Your task to perform on an android device: empty trash in the gmail app Image 0: 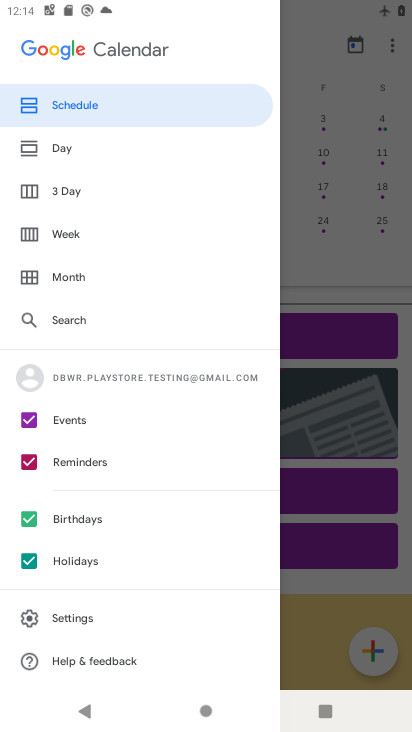
Step 0: click (109, 622)
Your task to perform on an android device: empty trash in the gmail app Image 1: 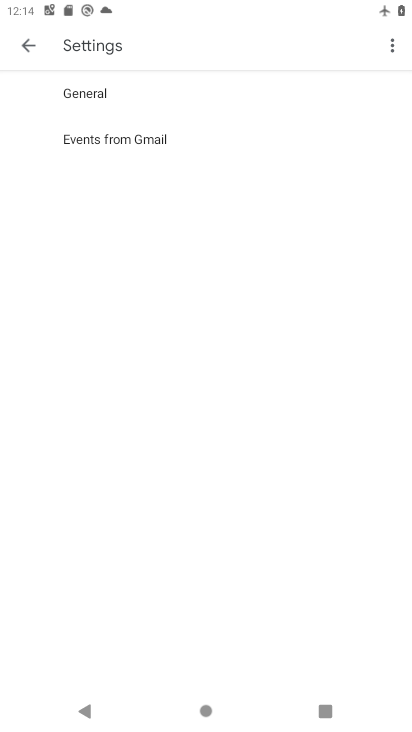
Step 1: drag from (107, 87) to (109, 393)
Your task to perform on an android device: empty trash in the gmail app Image 2: 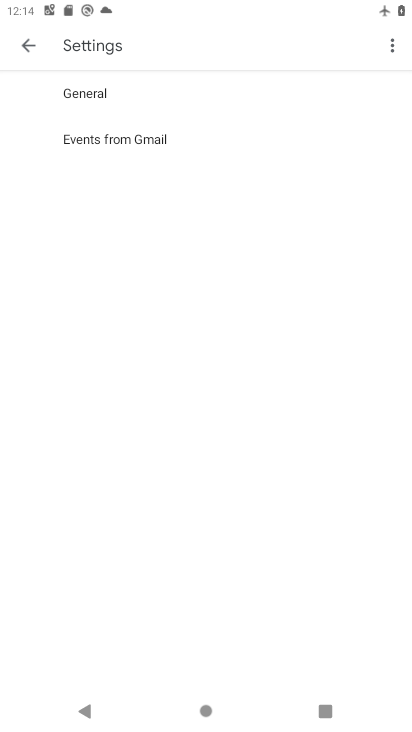
Step 2: press back button
Your task to perform on an android device: empty trash in the gmail app Image 3: 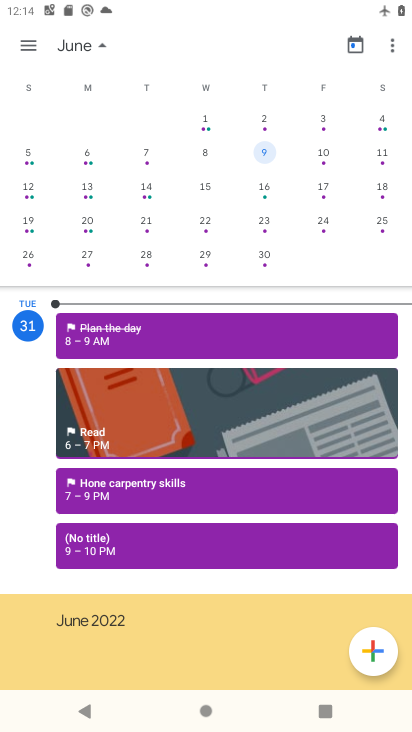
Step 3: press home button
Your task to perform on an android device: empty trash in the gmail app Image 4: 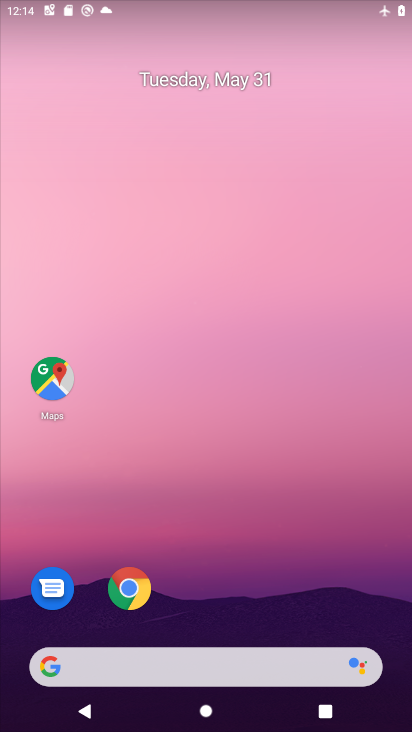
Step 4: drag from (174, 507) to (199, 56)
Your task to perform on an android device: empty trash in the gmail app Image 5: 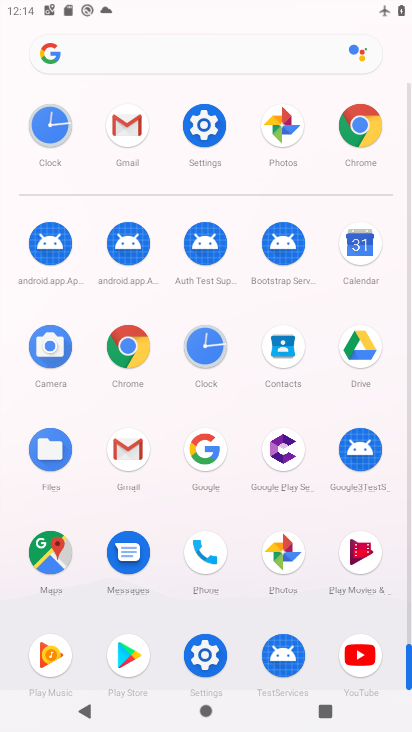
Step 5: click (124, 443)
Your task to perform on an android device: empty trash in the gmail app Image 6: 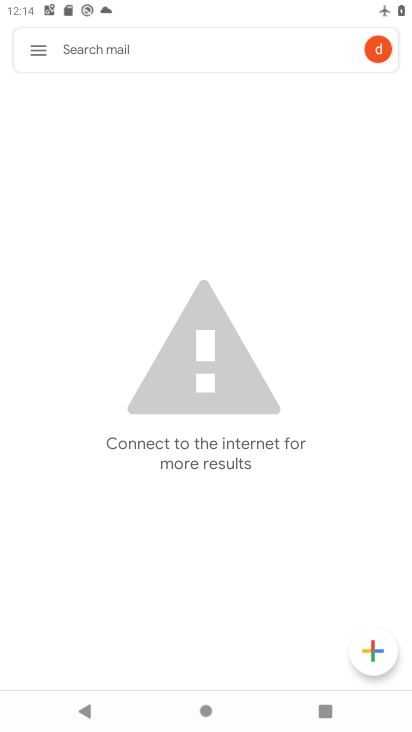
Step 6: click (31, 53)
Your task to perform on an android device: empty trash in the gmail app Image 7: 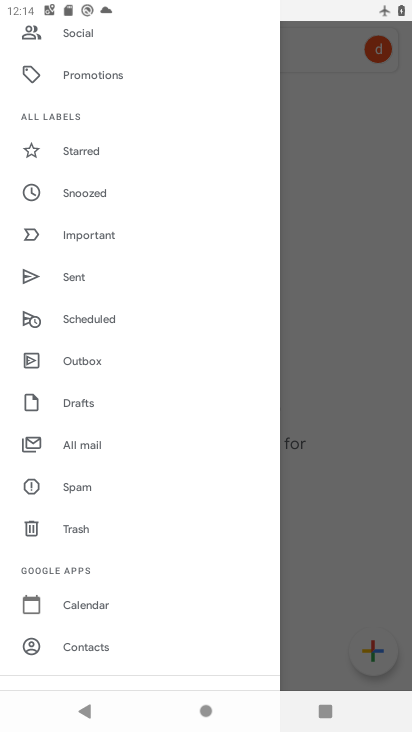
Step 7: click (111, 531)
Your task to perform on an android device: empty trash in the gmail app Image 8: 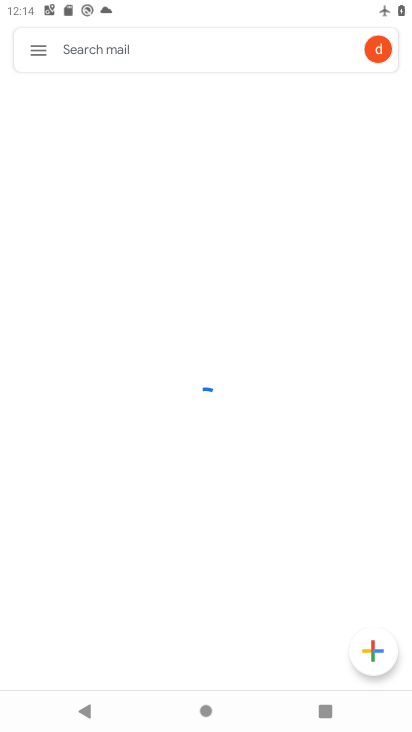
Step 8: task complete